Your task to perform on an android device: Open location settings Image 0: 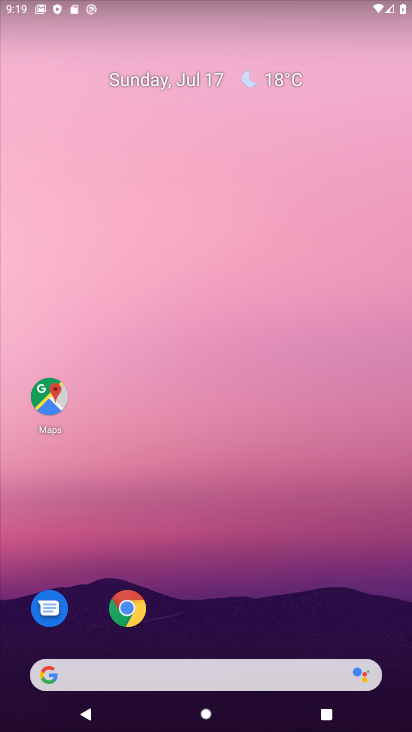
Step 0: drag from (234, 568) to (292, 350)
Your task to perform on an android device: Open location settings Image 1: 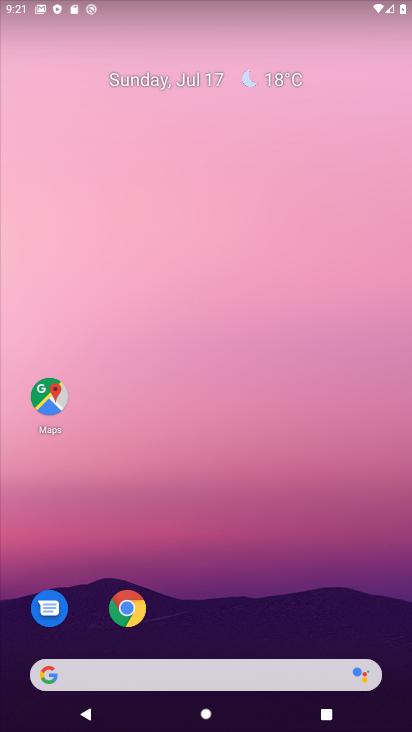
Step 1: drag from (253, 461) to (232, 167)
Your task to perform on an android device: Open location settings Image 2: 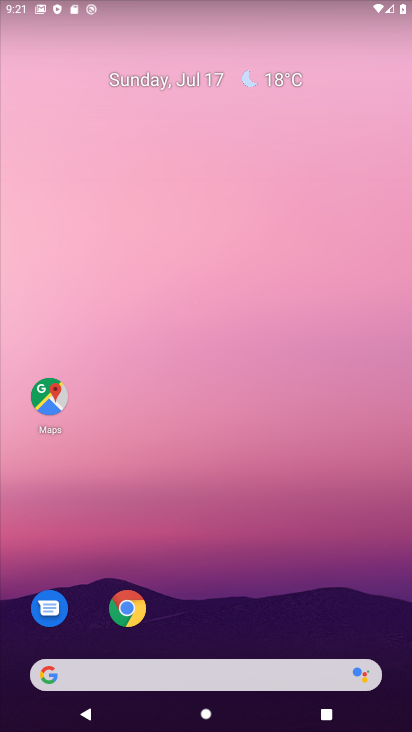
Step 2: drag from (249, 505) to (232, 199)
Your task to perform on an android device: Open location settings Image 3: 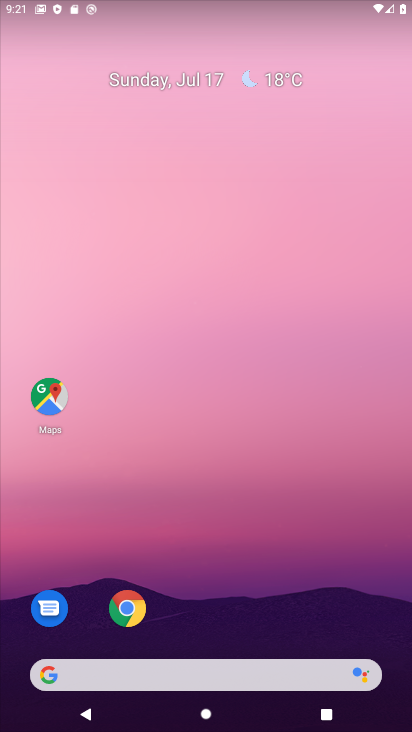
Step 3: drag from (246, 600) to (272, 181)
Your task to perform on an android device: Open location settings Image 4: 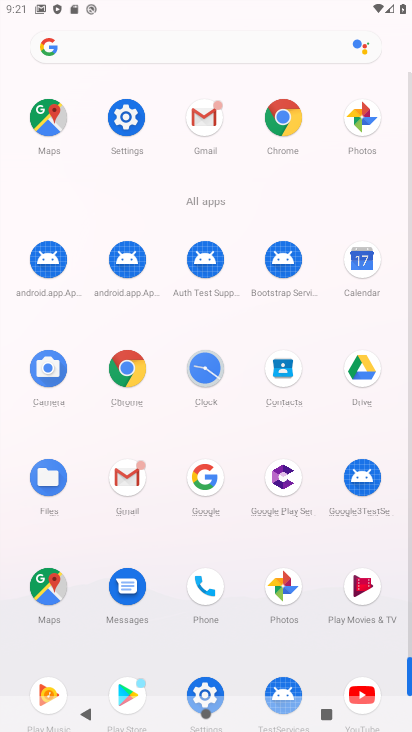
Step 4: drag from (251, 505) to (251, 289)
Your task to perform on an android device: Open location settings Image 5: 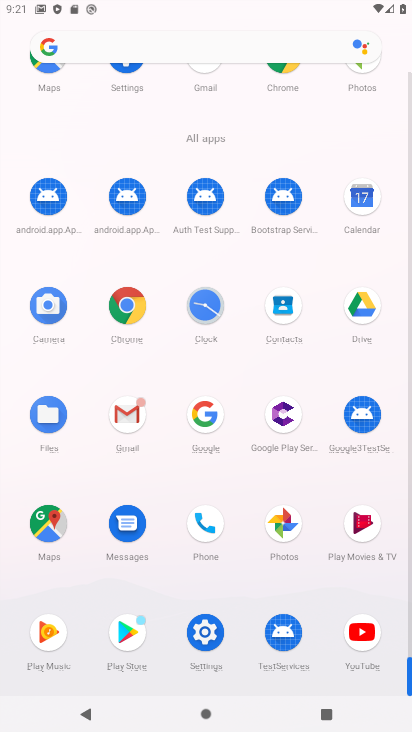
Step 5: click (206, 628)
Your task to perform on an android device: Open location settings Image 6: 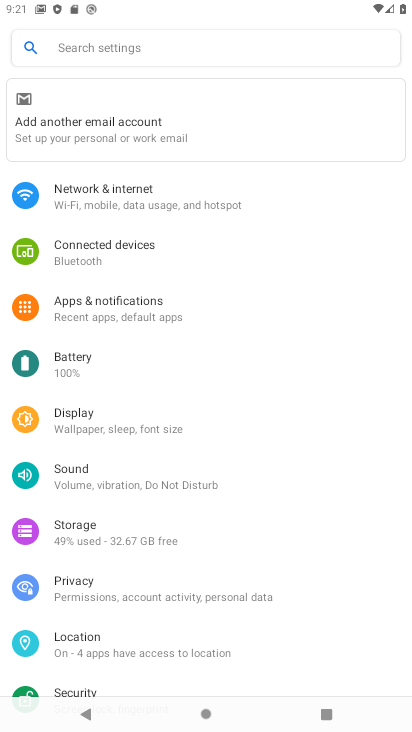
Step 6: click (64, 639)
Your task to perform on an android device: Open location settings Image 7: 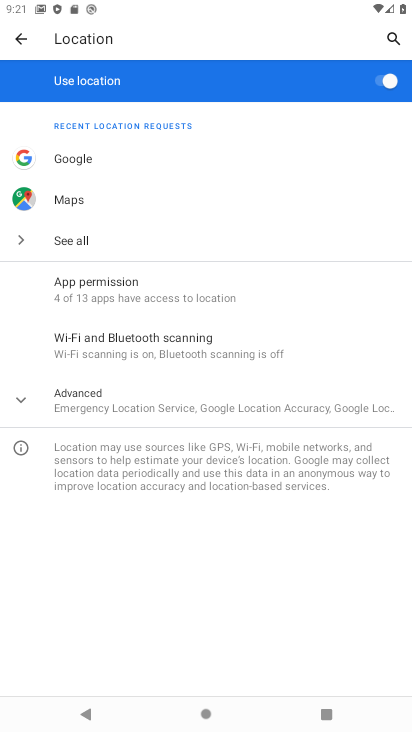
Step 7: task complete